Your task to perform on an android device: check android version Image 0: 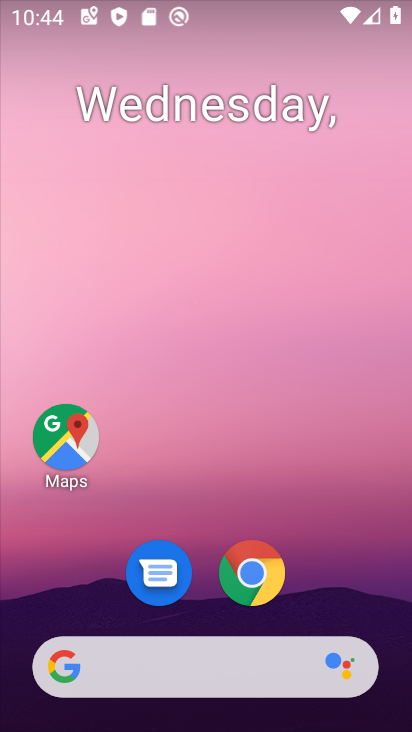
Step 0: drag from (208, 514) to (236, 1)
Your task to perform on an android device: check android version Image 1: 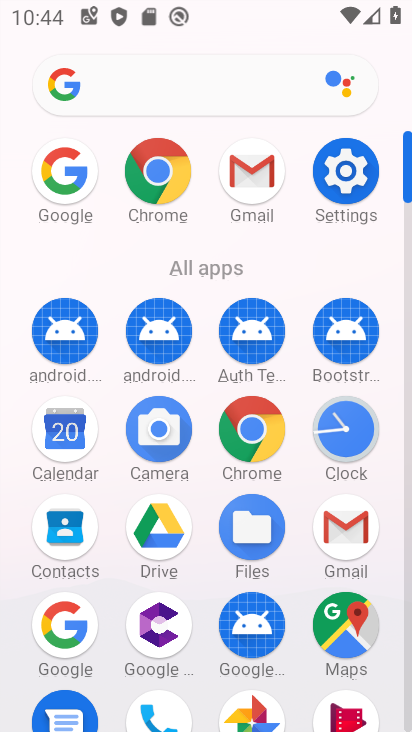
Step 1: click (350, 171)
Your task to perform on an android device: check android version Image 2: 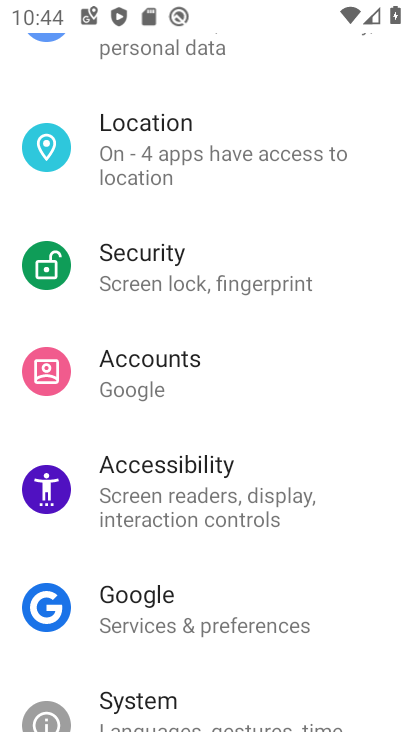
Step 2: drag from (174, 426) to (190, 270)
Your task to perform on an android device: check android version Image 3: 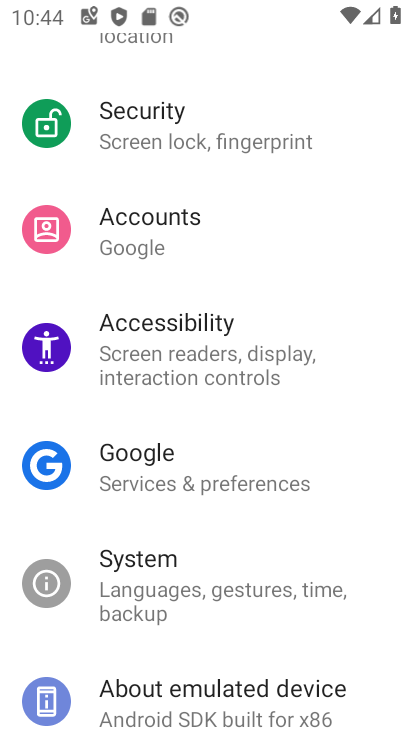
Step 3: drag from (205, 550) to (211, 389)
Your task to perform on an android device: check android version Image 4: 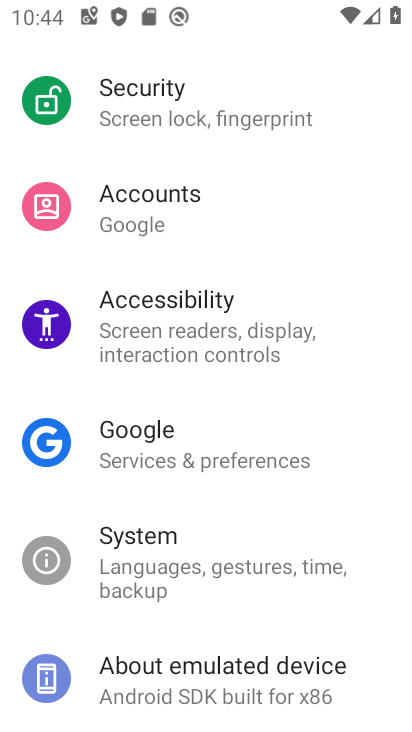
Step 4: click (166, 664)
Your task to perform on an android device: check android version Image 5: 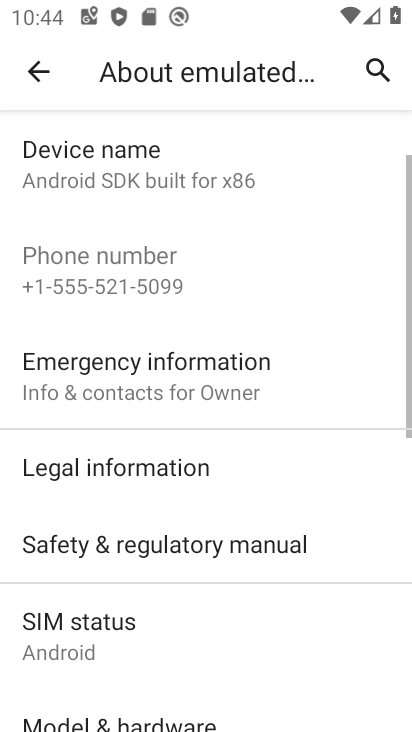
Step 5: drag from (161, 631) to (204, 343)
Your task to perform on an android device: check android version Image 6: 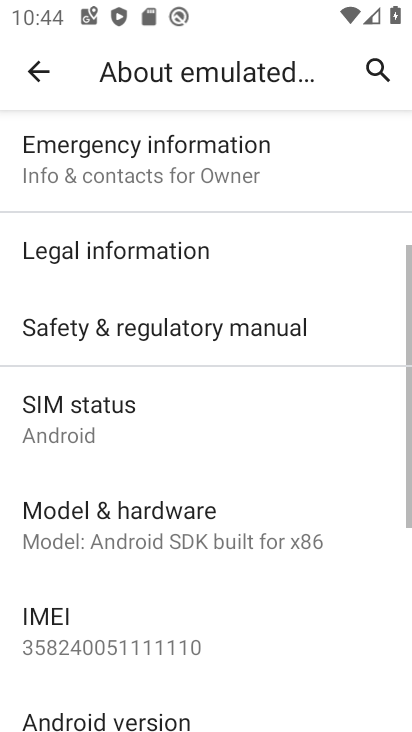
Step 6: drag from (202, 577) to (235, 368)
Your task to perform on an android device: check android version Image 7: 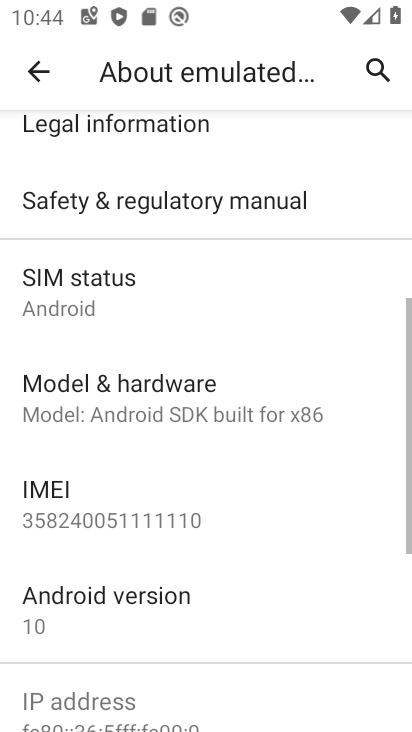
Step 7: click (153, 608)
Your task to perform on an android device: check android version Image 8: 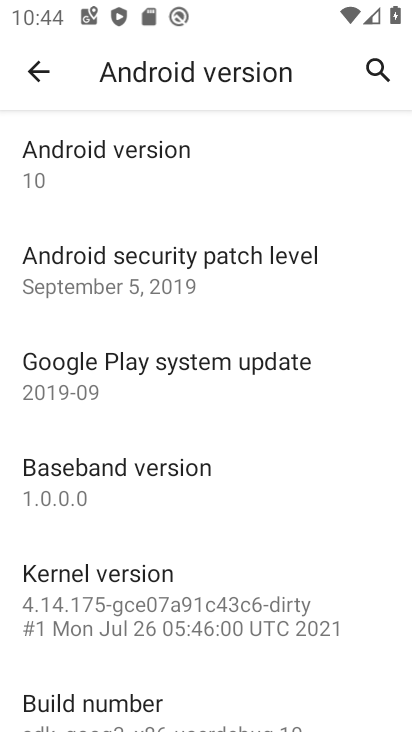
Step 8: task complete